Your task to perform on an android device: read, delete, or share a saved page in the chrome app Image 0: 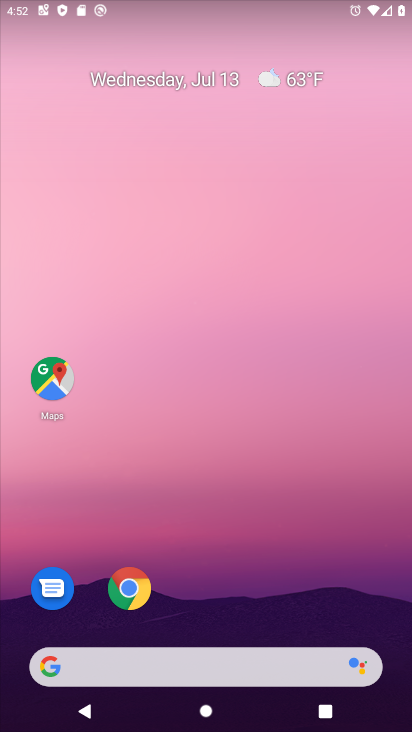
Step 0: click (130, 587)
Your task to perform on an android device: read, delete, or share a saved page in the chrome app Image 1: 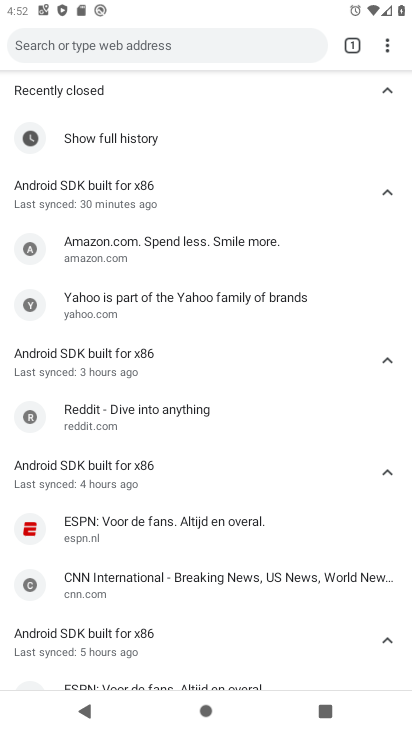
Step 1: click (389, 56)
Your task to perform on an android device: read, delete, or share a saved page in the chrome app Image 2: 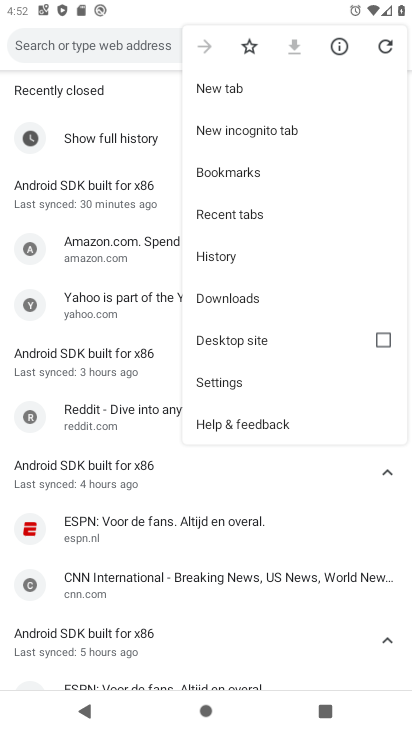
Step 2: click (241, 180)
Your task to perform on an android device: read, delete, or share a saved page in the chrome app Image 3: 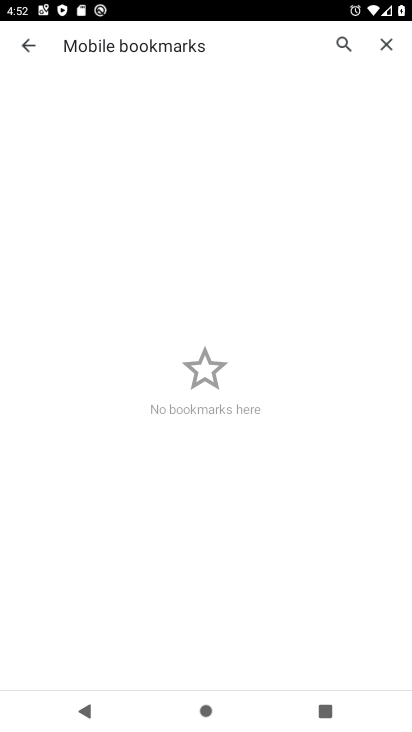
Step 3: click (385, 41)
Your task to perform on an android device: read, delete, or share a saved page in the chrome app Image 4: 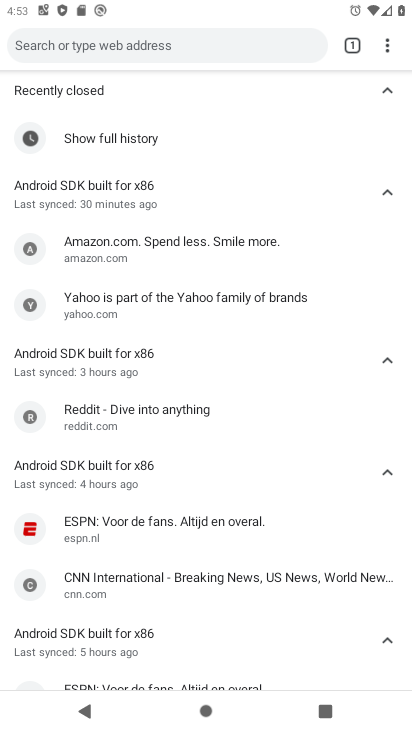
Step 4: click (388, 47)
Your task to perform on an android device: read, delete, or share a saved page in the chrome app Image 5: 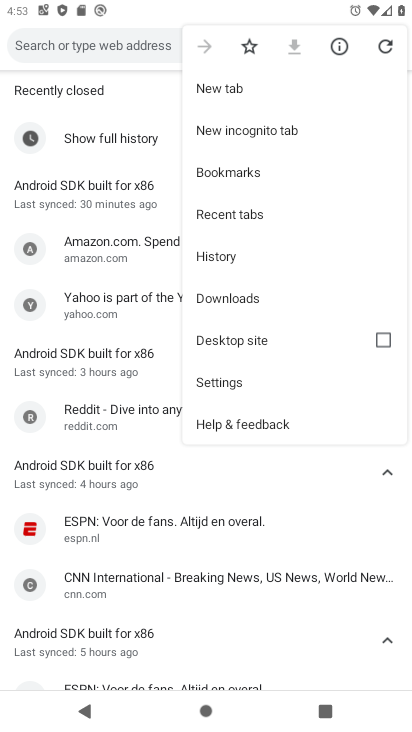
Step 5: click (245, 297)
Your task to perform on an android device: read, delete, or share a saved page in the chrome app Image 6: 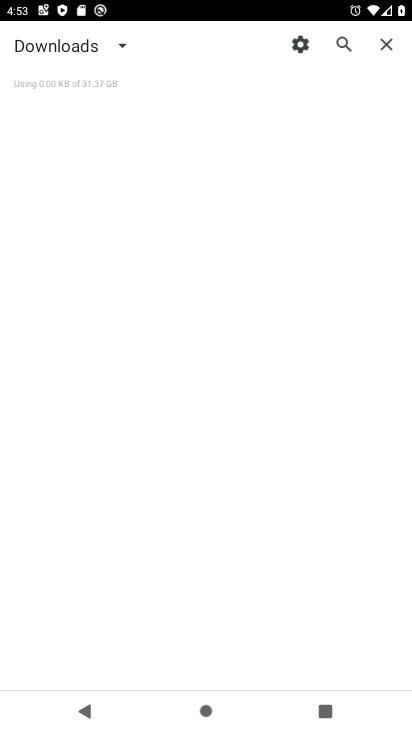
Step 6: click (118, 40)
Your task to perform on an android device: read, delete, or share a saved page in the chrome app Image 7: 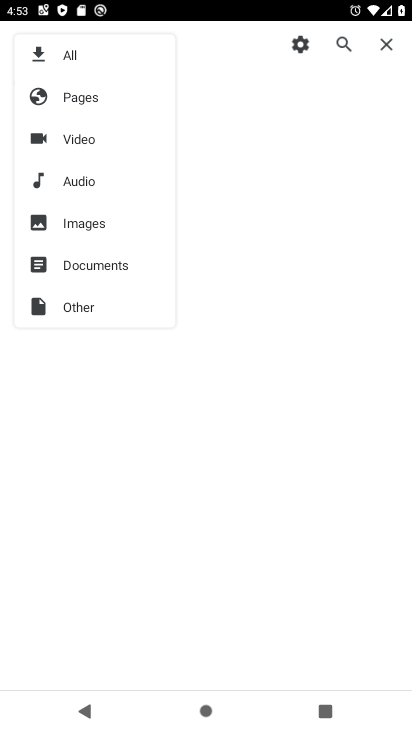
Step 7: click (81, 97)
Your task to perform on an android device: read, delete, or share a saved page in the chrome app Image 8: 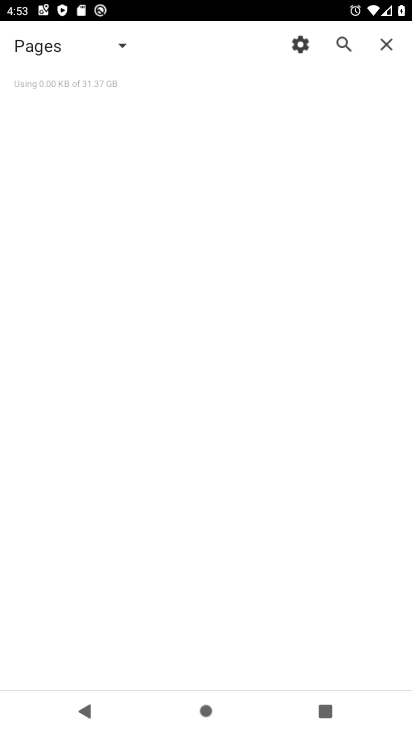
Step 8: click (119, 42)
Your task to perform on an android device: read, delete, or share a saved page in the chrome app Image 9: 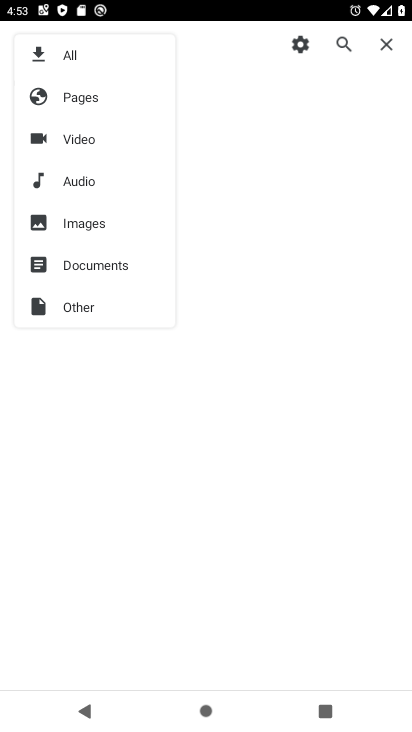
Step 9: click (92, 92)
Your task to perform on an android device: read, delete, or share a saved page in the chrome app Image 10: 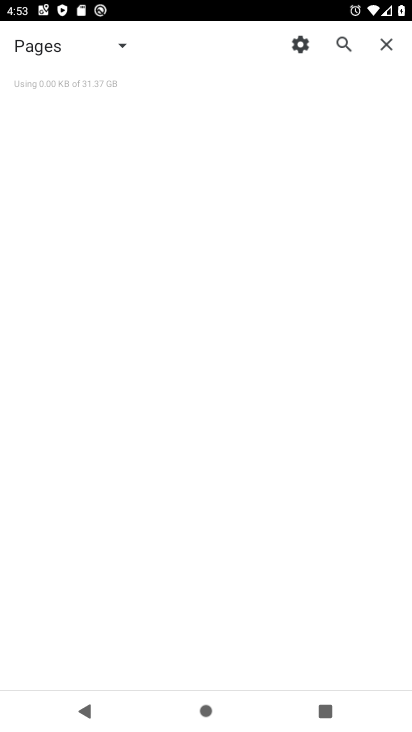
Step 10: click (120, 42)
Your task to perform on an android device: read, delete, or share a saved page in the chrome app Image 11: 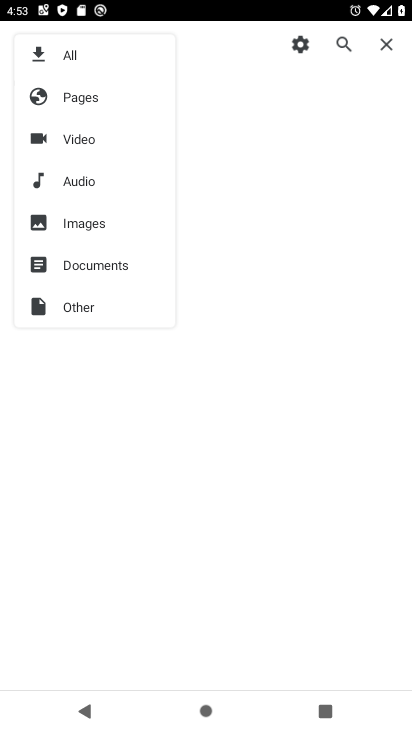
Step 11: click (78, 300)
Your task to perform on an android device: read, delete, or share a saved page in the chrome app Image 12: 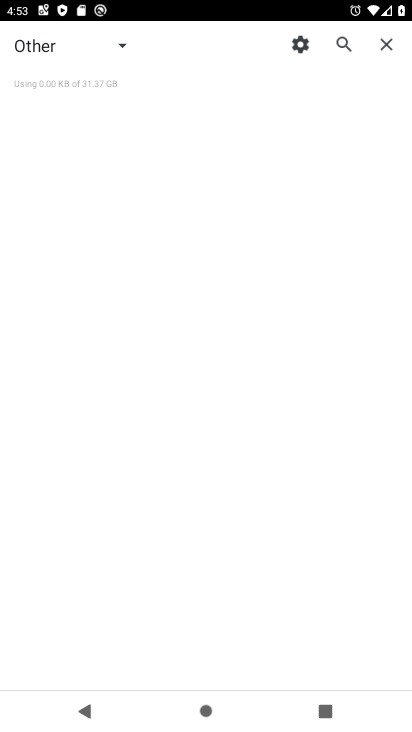
Step 12: task complete